Your task to perform on an android device: change timer sound Image 0: 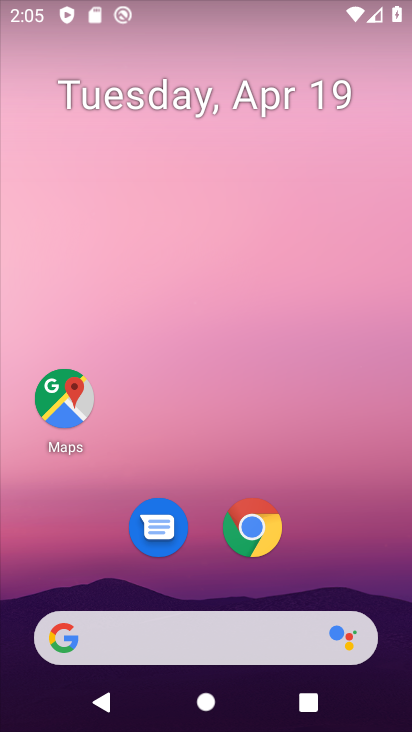
Step 0: drag from (252, 596) to (250, 161)
Your task to perform on an android device: change timer sound Image 1: 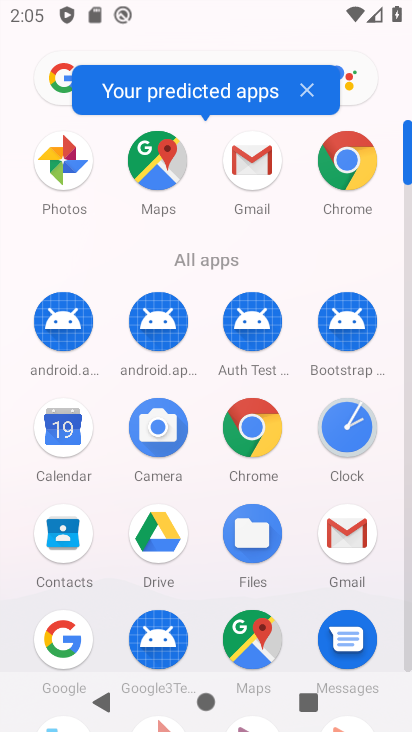
Step 1: click (336, 425)
Your task to perform on an android device: change timer sound Image 2: 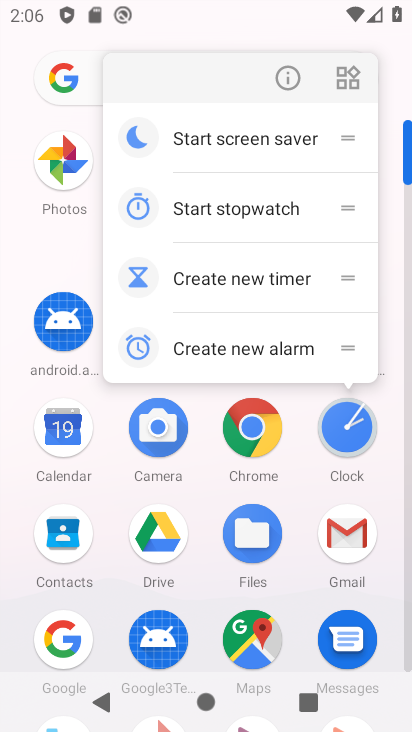
Step 2: click (353, 439)
Your task to perform on an android device: change timer sound Image 3: 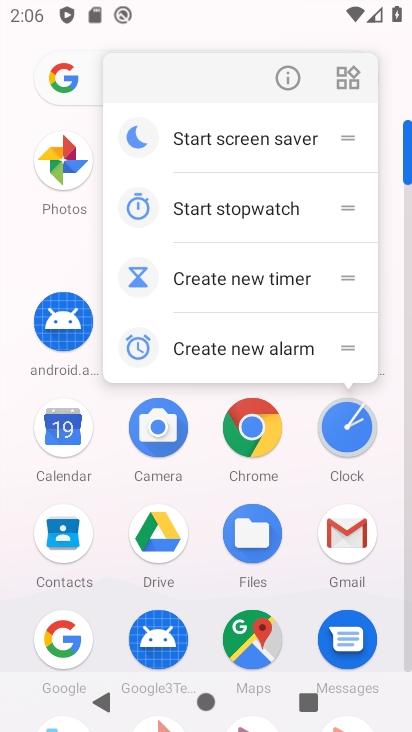
Step 3: click (340, 433)
Your task to perform on an android device: change timer sound Image 4: 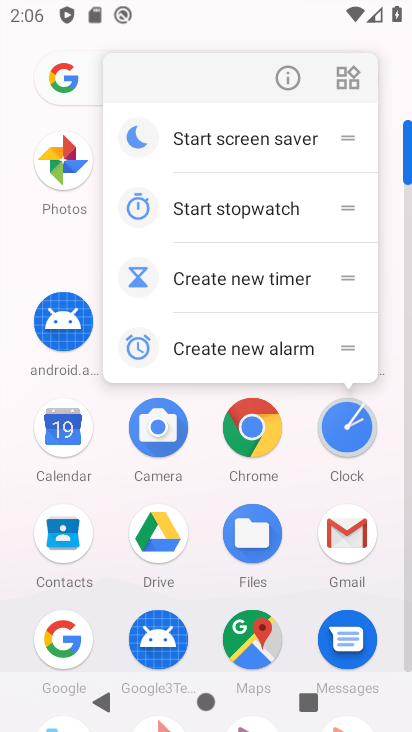
Step 4: click (340, 433)
Your task to perform on an android device: change timer sound Image 5: 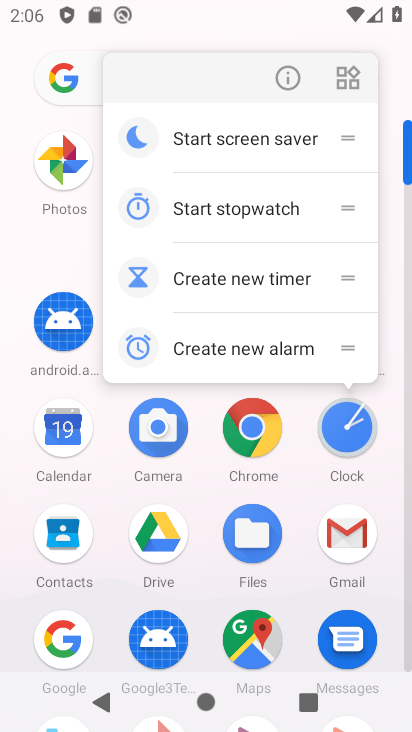
Step 5: click (340, 433)
Your task to perform on an android device: change timer sound Image 6: 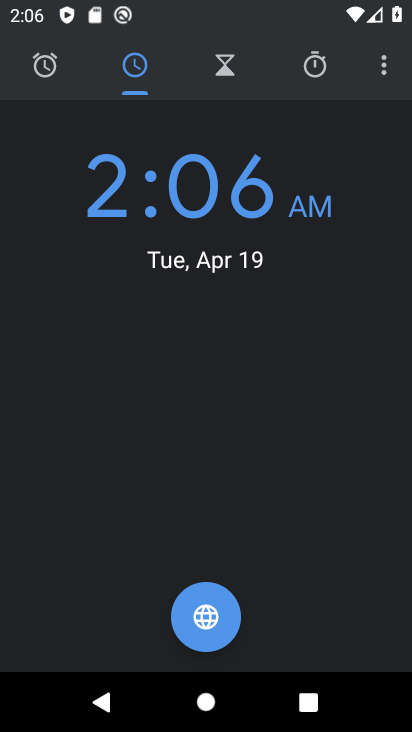
Step 6: click (383, 54)
Your task to perform on an android device: change timer sound Image 7: 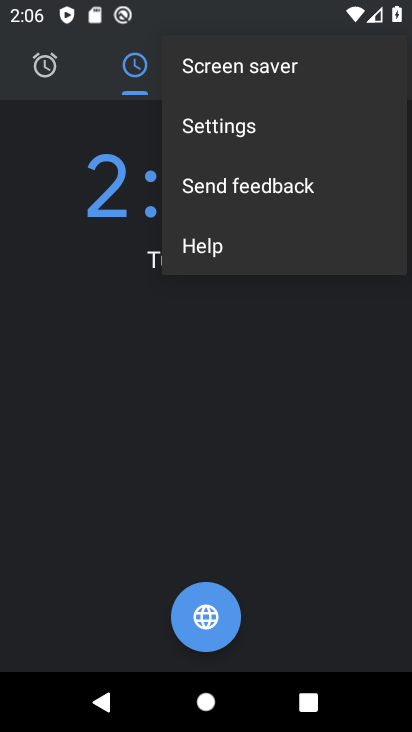
Step 7: click (230, 122)
Your task to perform on an android device: change timer sound Image 8: 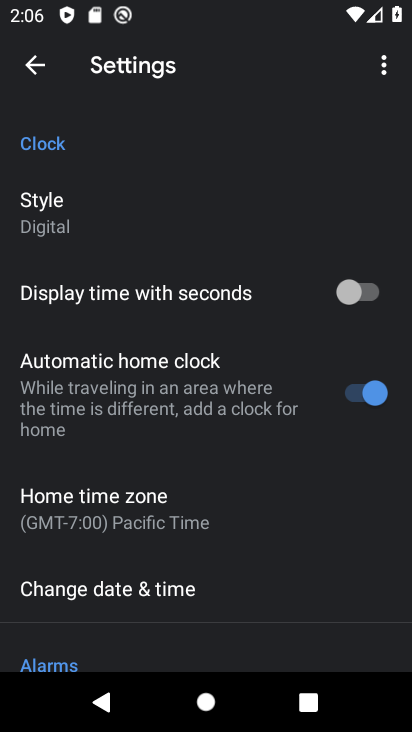
Step 8: drag from (190, 643) to (212, 202)
Your task to perform on an android device: change timer sound Image 9: 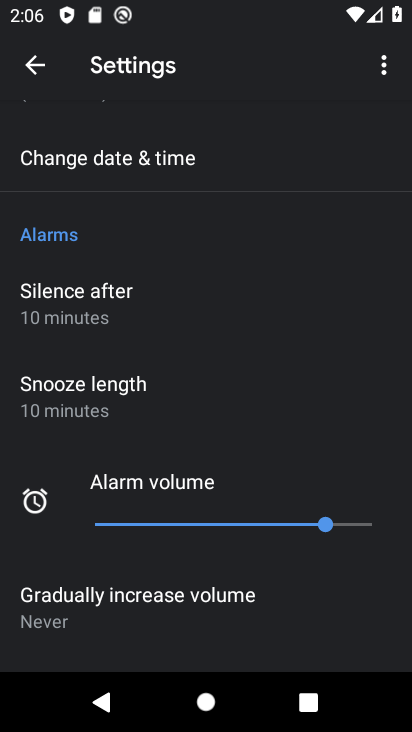
Step 9: drag from (197, 566) to (196, 221)
Your task to perform on an android device: change timer sound Image 10: 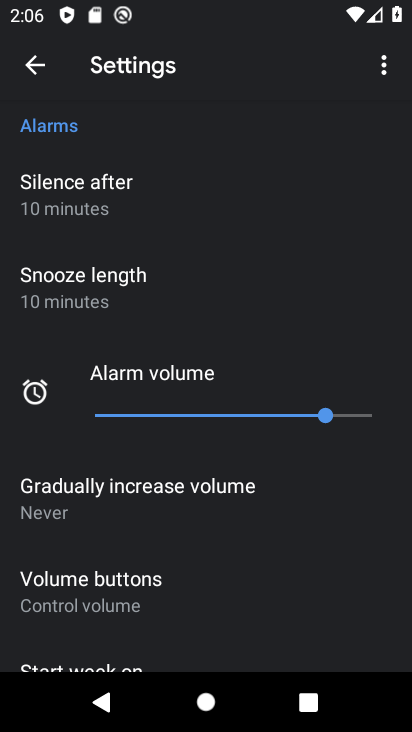
Step 10: drag from (108, 620) to (182, 263)
Your task to perform on an android device: change timer sound Image 11: 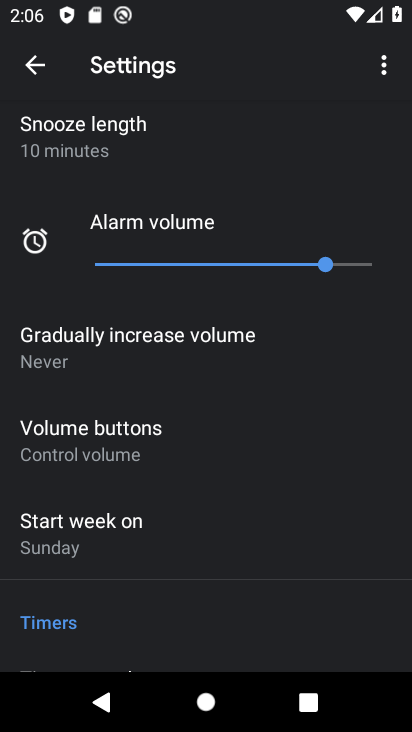
Step 11: drag from (147, 618) to (191, 256)
Your task to perform on an android device: change timer sound Image 12: 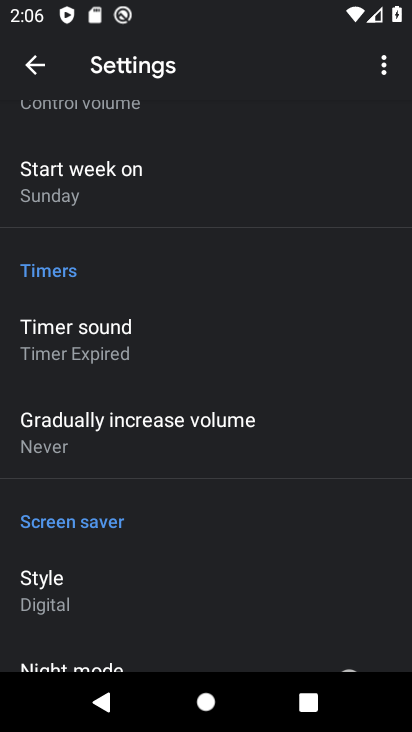
Step 12: click (93, 326)
Your task to perform on an android device: change timer sound Image 13: 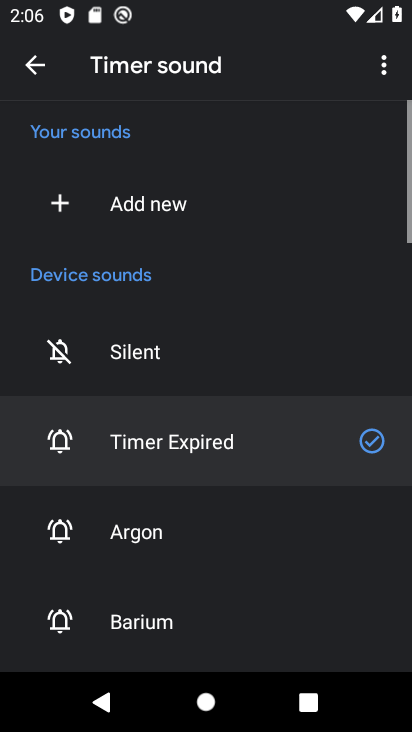
Step 13: click (90, 526)
Your task to perform on an android device: change timer sound Image 14: 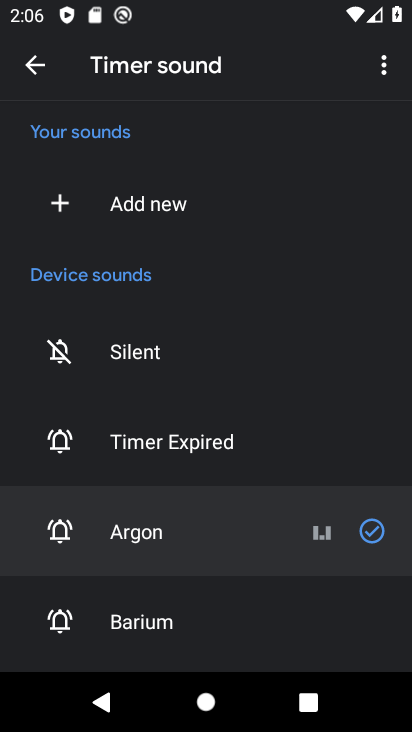
Step 14: task complete